Your task to perform on an android device: Open maps Image 0: 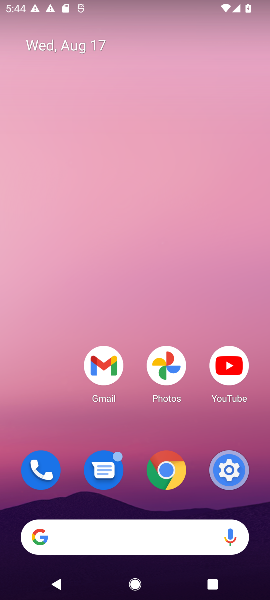
Step 0: drag from (130, 419) to (155, 15)
Your task to perform on an android device: Open maps Image 1: 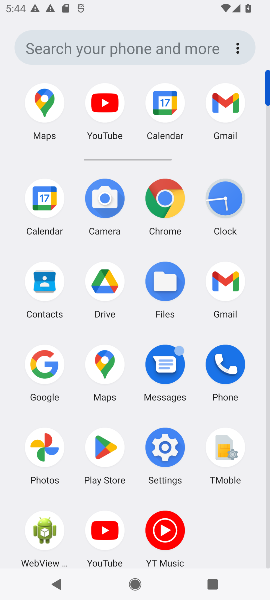
Step 1: click (159, 201)
Your task to perform on an android device: Open maps Image 2: 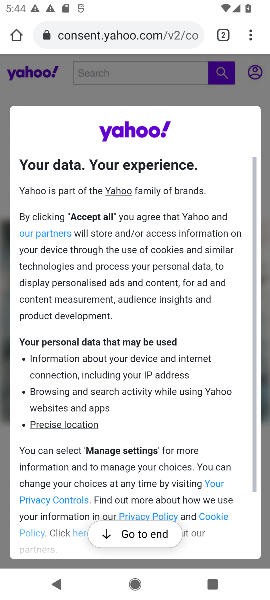
Step 2: press home button
Your task to perform on an android device: Open maps Image 3: 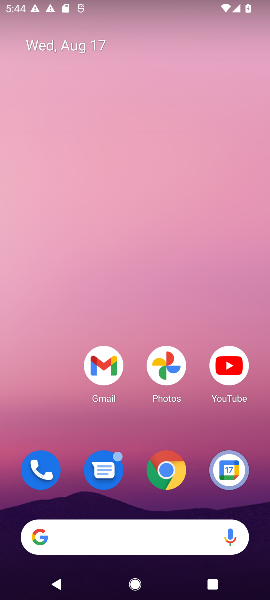
Step 3: drag from (117, 464) to (112, 19)
Your task to perform on an android device: Open maps Image 4: 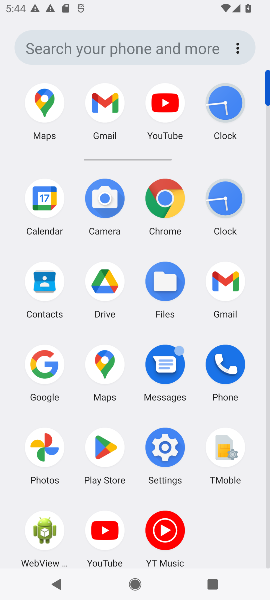
Step 4: click (94, 366)
Your task to perform on an android device: Open maps Image 5: 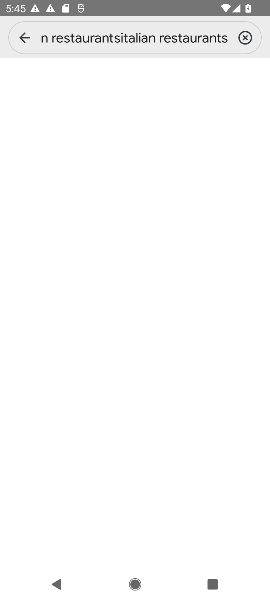
Step 5: click (25, 31)
Your task to perform on an android device: Open maps Image 6: 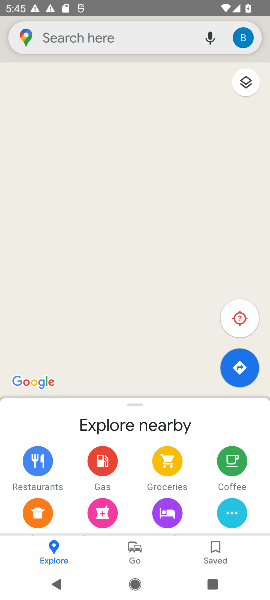
Step 6: task complete